Your task to perform on an android device: turn on showing notifications on the lock screen Image 0: 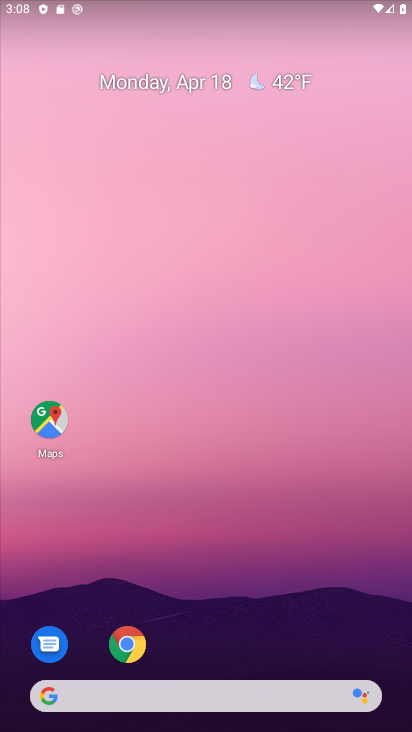
Step 0: drag from (212, 553) to (215, 63)
Your task to perform on an android device: turn on showing notifications on the lock screen Image 1: 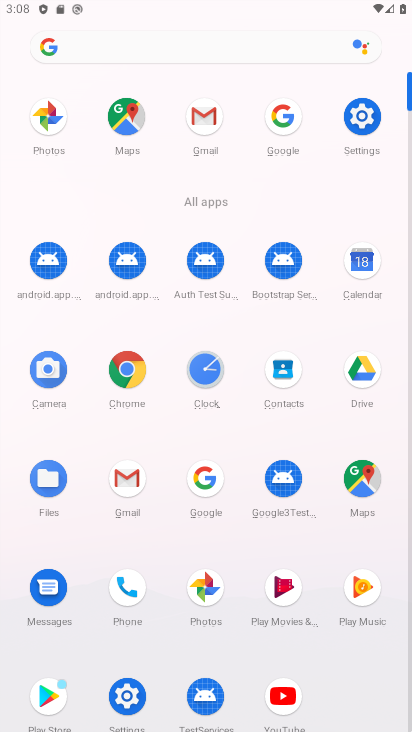
Step 1: click (364, 112)
Your task to perform on an android device: turn on showing notifications on the lock screen Image 2: 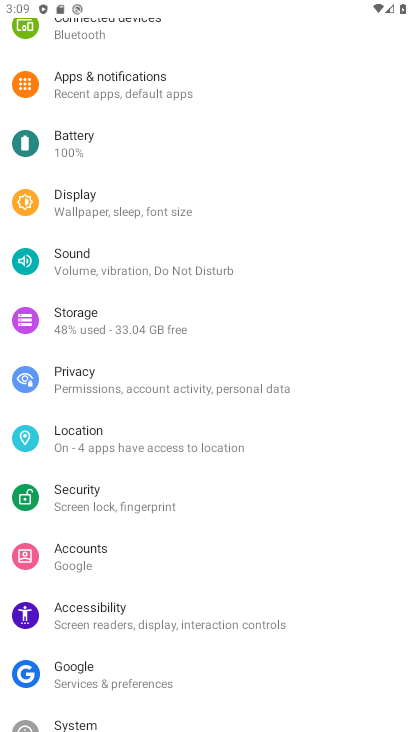
Step 2: click (113, 86)
Your task to perform on an android device: turn on showing notifications on the lock screen Image 3: 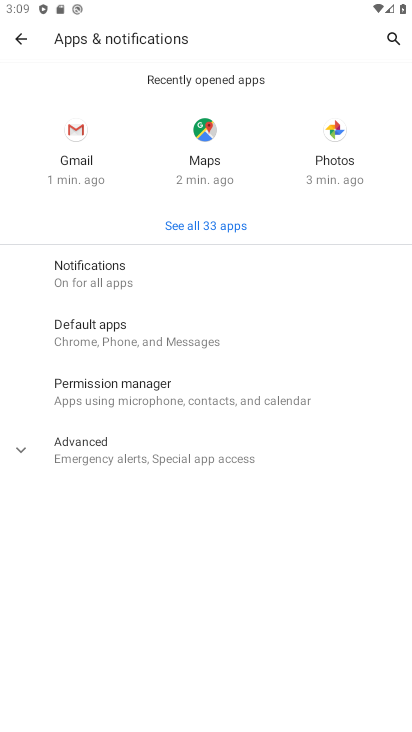
Step 3: click (97, 275)
Your task to perform on an android device: turn on showing notifications on the lock screen Image 4: 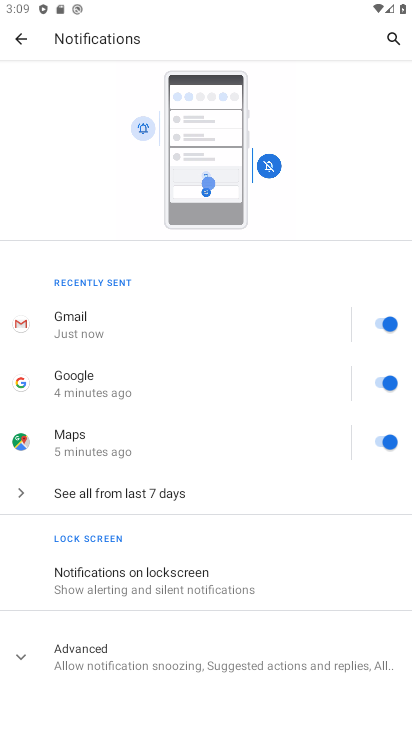
Step 4: click (100, 584)
Your task to perform on an android device: turn on showing notifications on the lock screen Image 5: 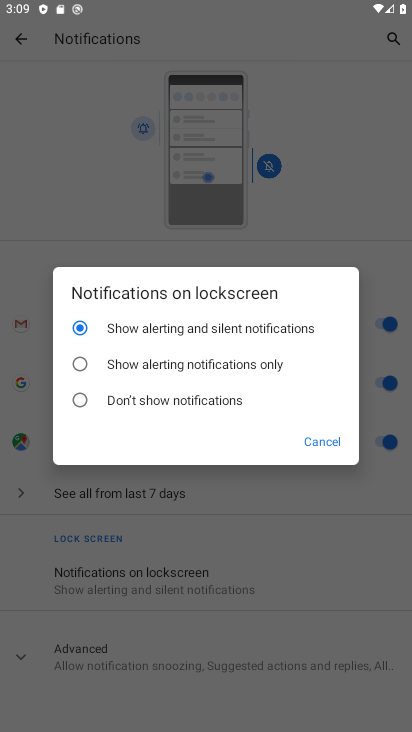
Step 5: click (157, 329)
Your task to perform on an android device: turn on showing notifications on the lock screen Image 6: 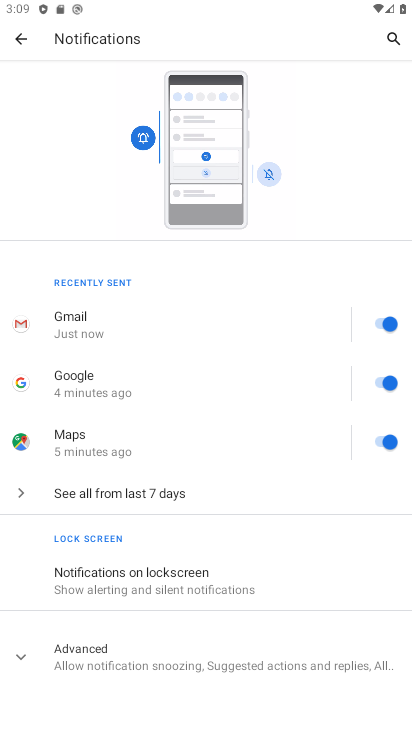
Step 6: task complete